Your task to perform on an android device: manage bookmarks in the chrome app Image 0: 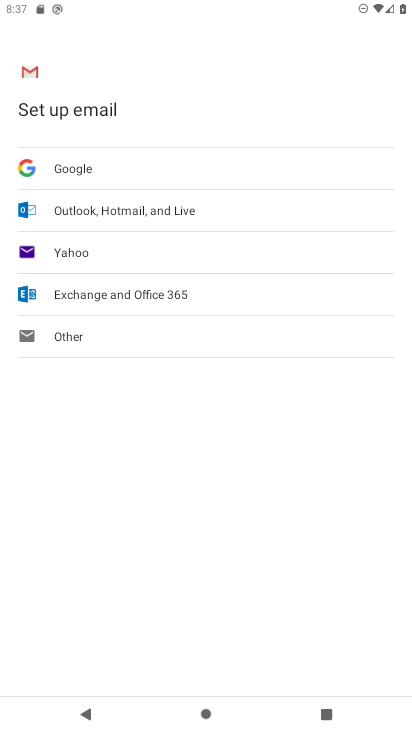
Step 0: press home button
Your task to perform on an android device: manage bookmarks in the chrome app Image 1: 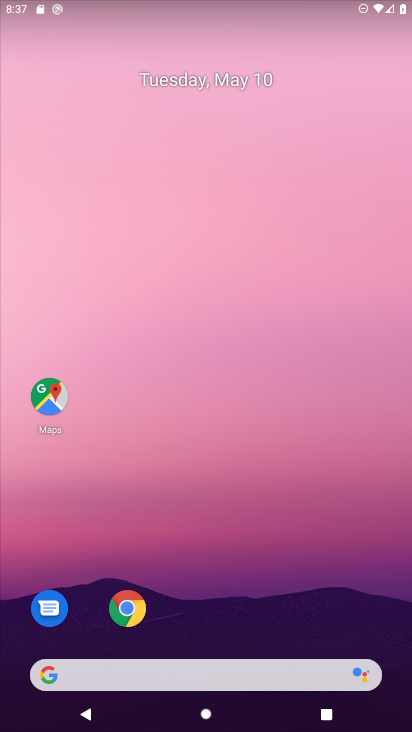
Step 1: drag from (327, 450) to (300, 46)
Your task to perform on an android device: manage bookmarks in the chrome app Image 2: 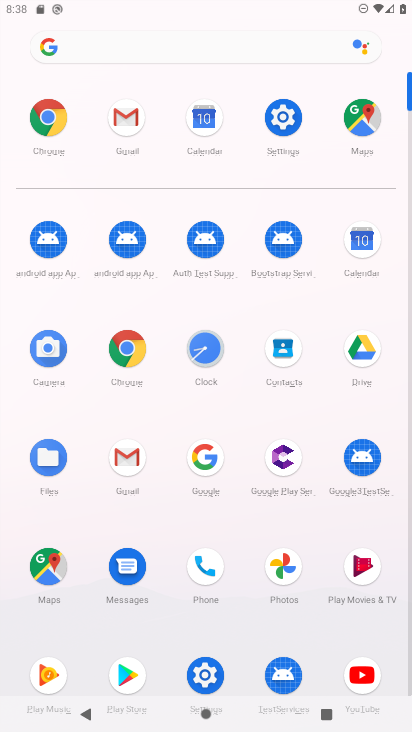
Step 2: click (40, 118)
Your task to perform on an android device: manage bookmarks in the chrome app Image 3: 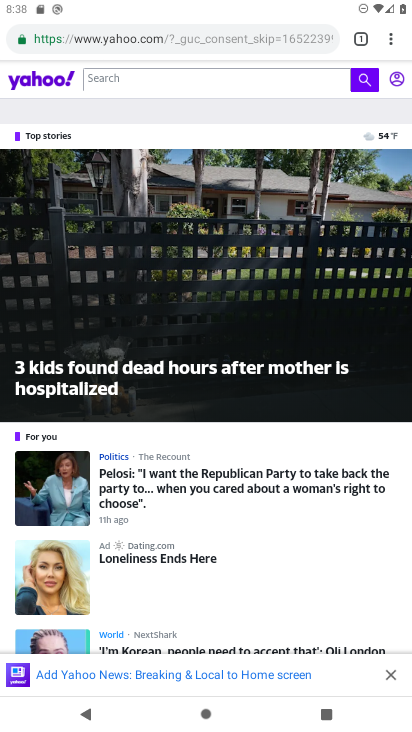
Step 3: task complete